Your task to perform on an android device: Go to Amazon Image 0: 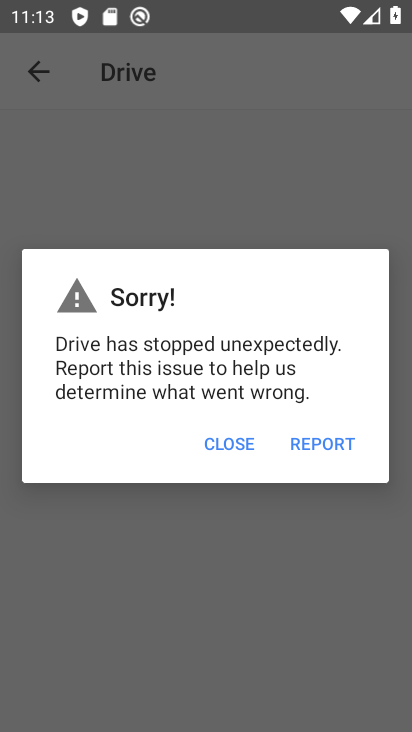
Step 0: press home button
Your task to perform on an android device: Go to Amazon Image 1: 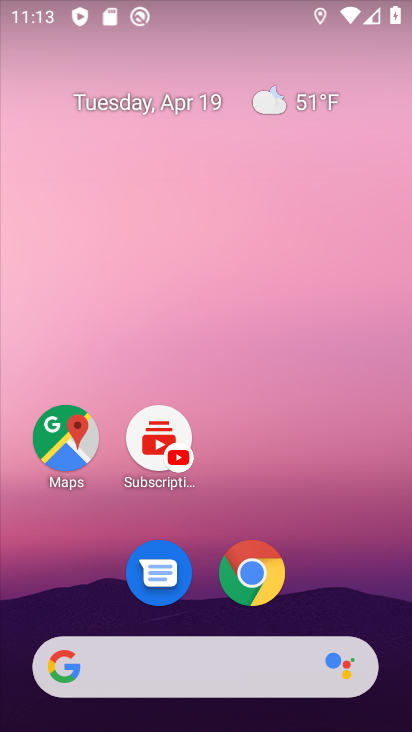
Step 1: click (263, 572)
Your task to perform on an android device: Go to Amazon Image 2: 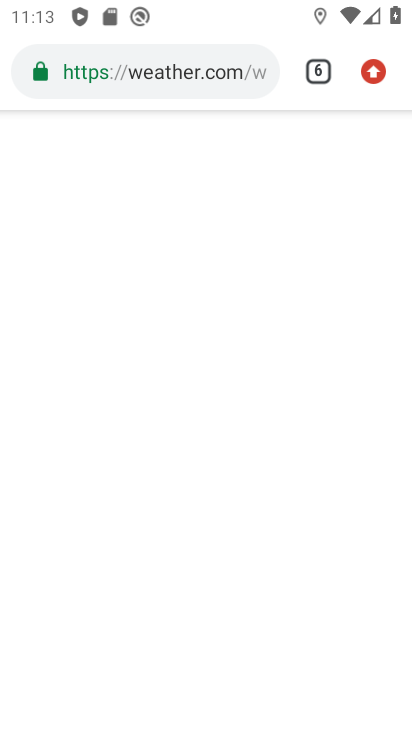
Step 2: click (315, 70)
Your task to perform on an android device: Go to Amazon Image 3: 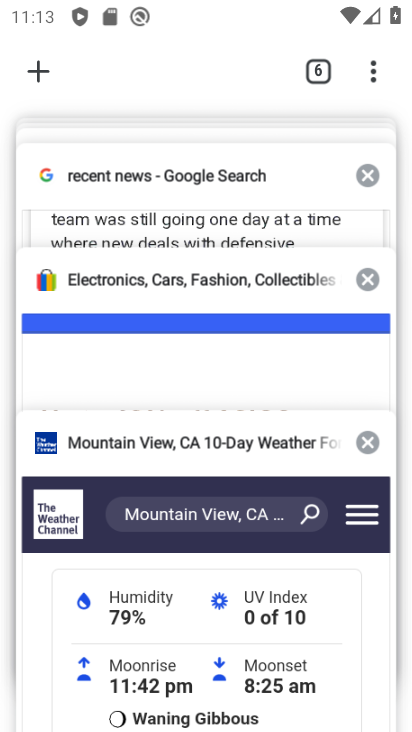
Step 3: drag from (148, 209) to (135, 587)
Your task to perform on an android device: Go to Amazon Image 4: 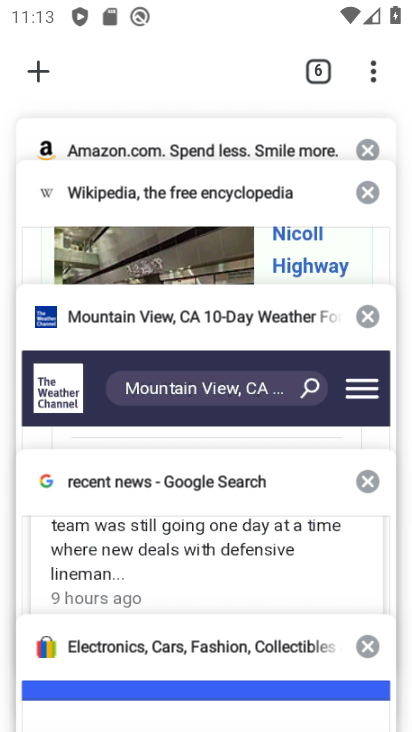
Step 4: drag from (119, 203) to (124, 439)
Your task to perform on an android device: Go to Amazon Image 5: 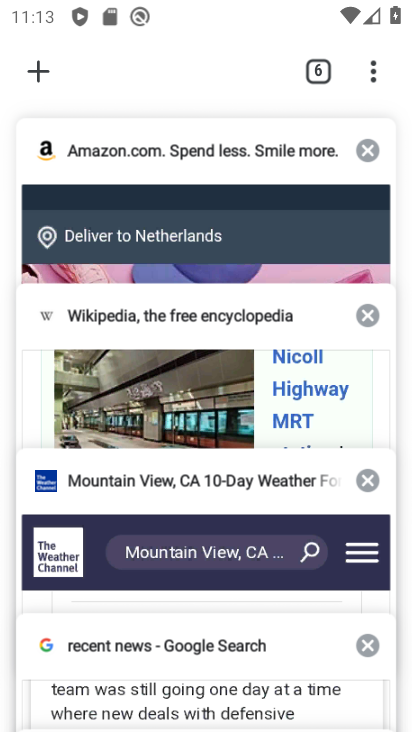
Step 5: click (233, 236)
Your task to perform on an android device: Go to Amazon Image 6: 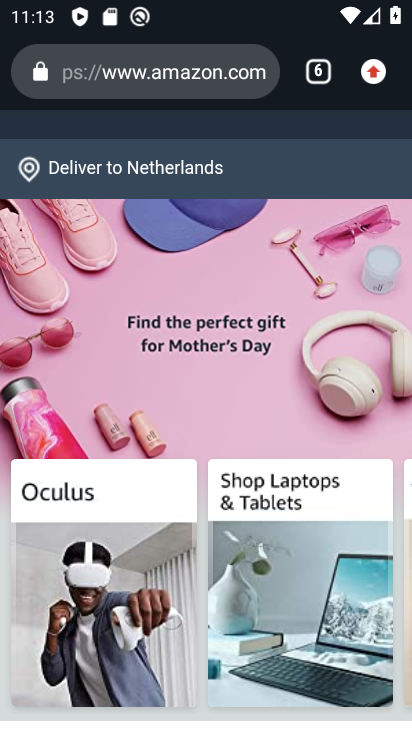
Step 6: task complete